Your task to perform on an android device: What is the news today? Image 0: 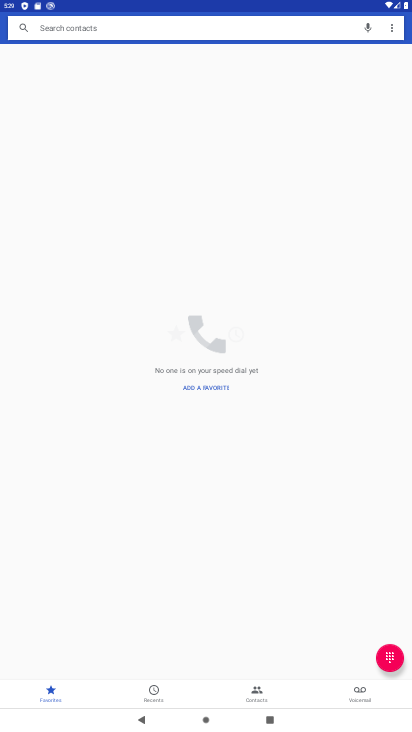
Step 0: press home button
Your task to perform on an android device: What is the news today? Image 1: 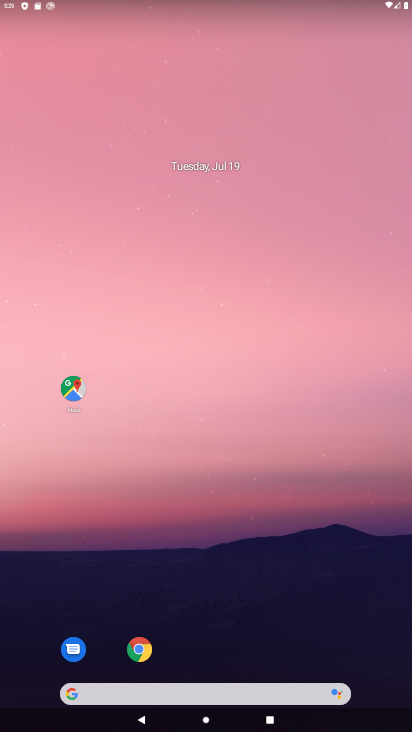
Step 1: drag from (281, 571) to (255, 130)
Your task to perform on an android device: What is the news today? Image 2: 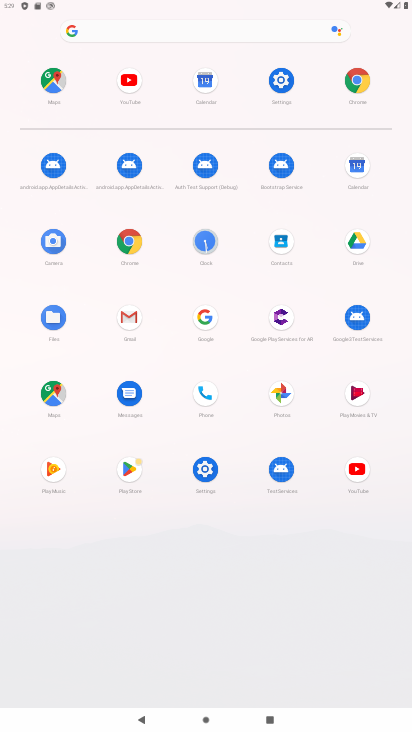
Step 2: click (358, 78)
Your task to perform on an android device: What is the news today? Image 3: 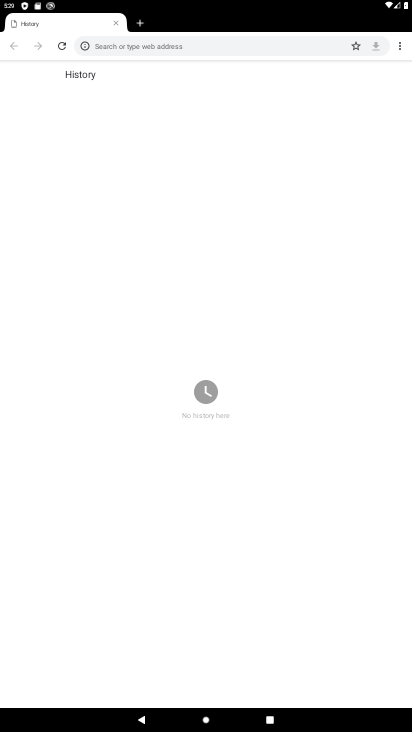
Step 3: click (239, 48)
Your task to perform on an android device: What is the news today? Image 4: 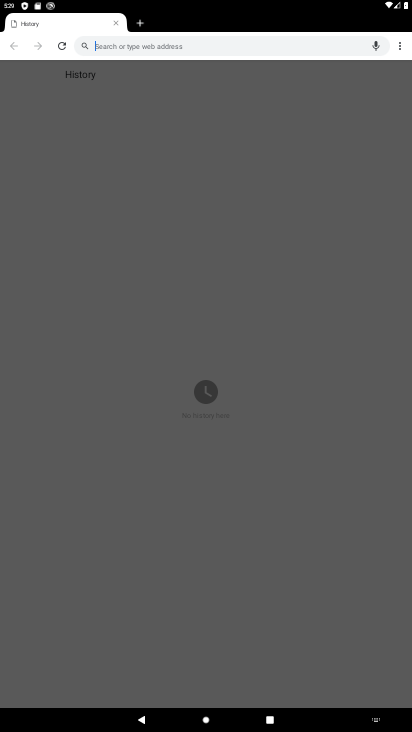
Step 4: type "news"
Your task to perform on an android device: What is the news today? Image 5: 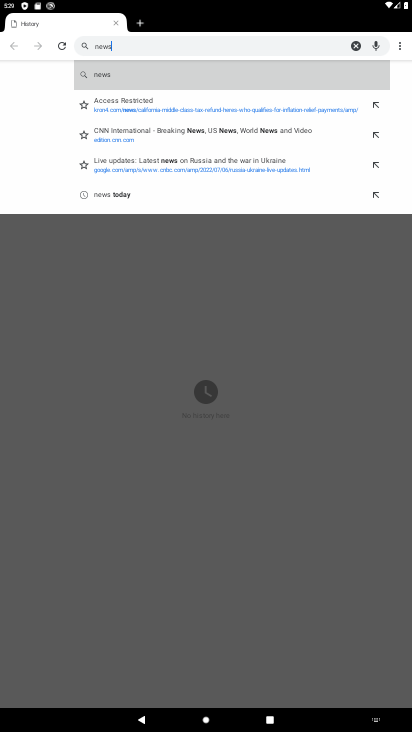
Step 5: click (113, 83)
Your task to perform on an android device: What is the news today? Image 6: 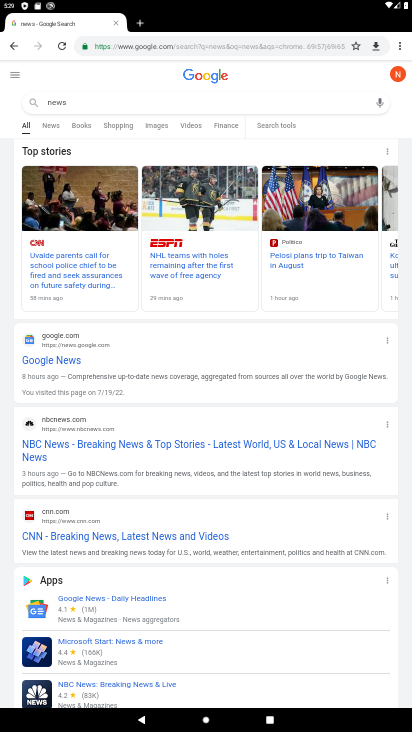
Step 6: click (49, 362)
Your task to perform on an android device: What is the news today? Image 7: 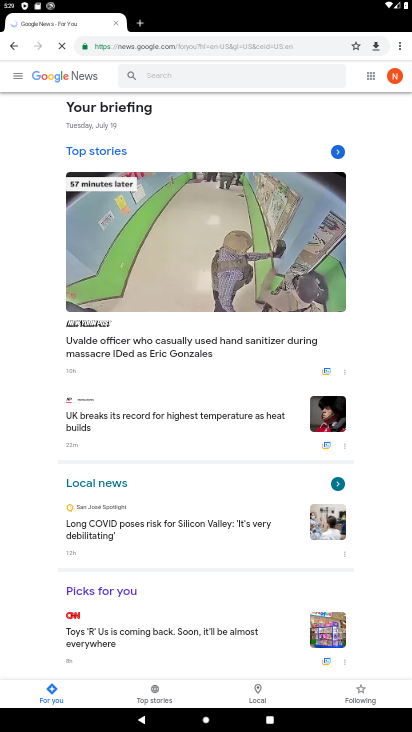
Step 7: task complete